Your task to perform on an android device: toggle notification dots Image 0: 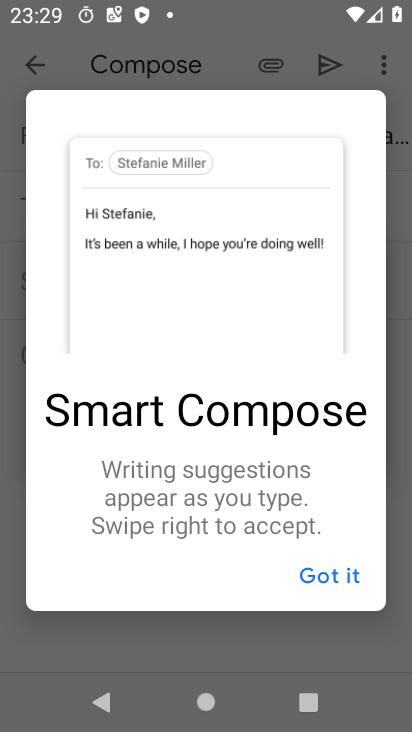
Step 0: click (320, 564)
Your task to perform on an android device: toggle notification dots Image 1: 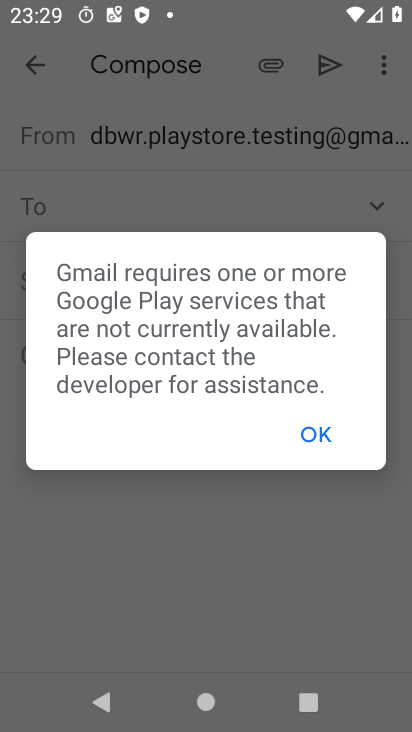
Step 1: click (311, 430)
Your task to perform on an android device: toggle notification dots Image 2: 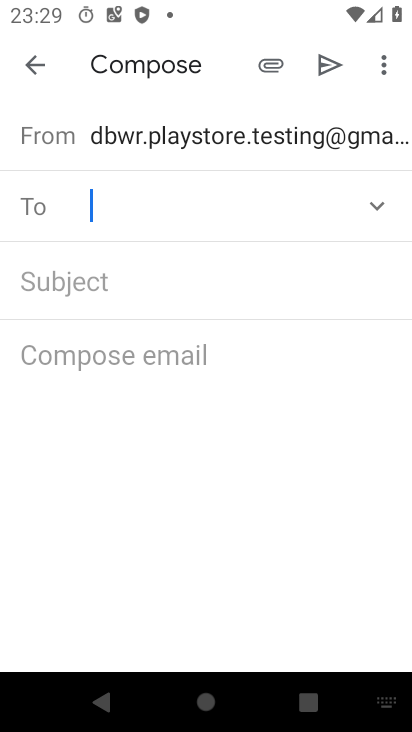
Step 2: drag from (225, 524) to (213, 286)
Your task to perform on an android device: toggle notification dots Image 3: 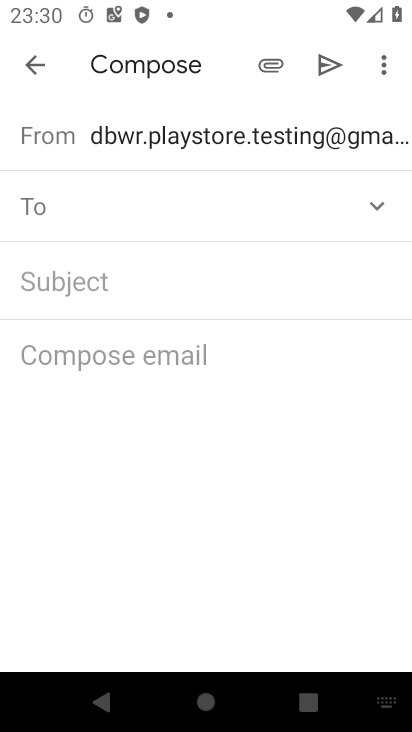
Step 3: press home button
Your task to perform on an android device: toggle notification dots Image 4: 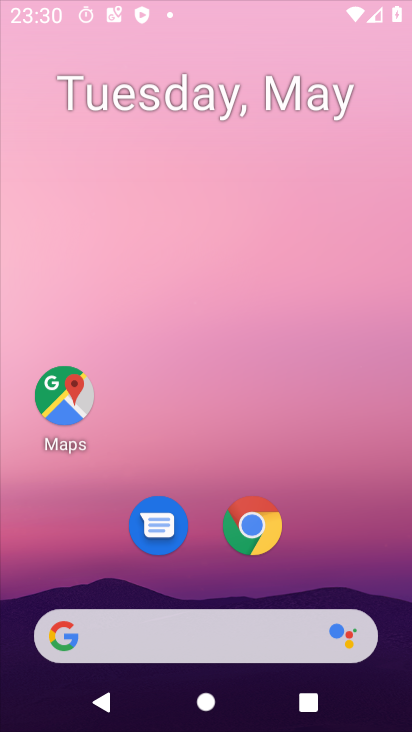
Step 4: drag from (154, 496) to (399, 91)
Your task to perform on an android device: toggle notification dots Image 5: 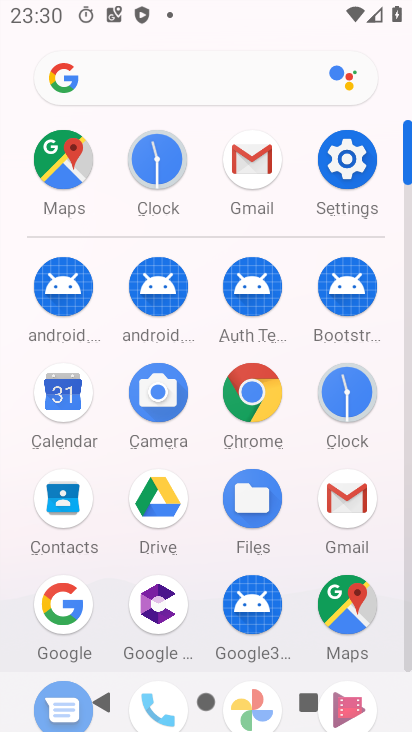
Step 5: click (347, 177)
Your task to perform on an android device: toggle notification dots Image 6: 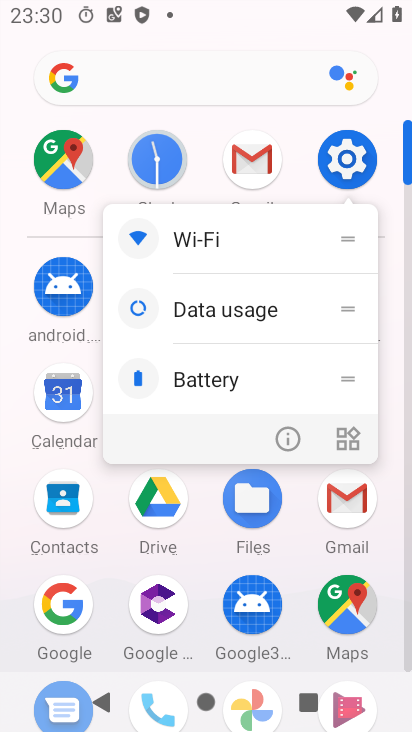
Step 6: click (279, 429)
Your task to perform on an android device: toggle notification dots Image 7: 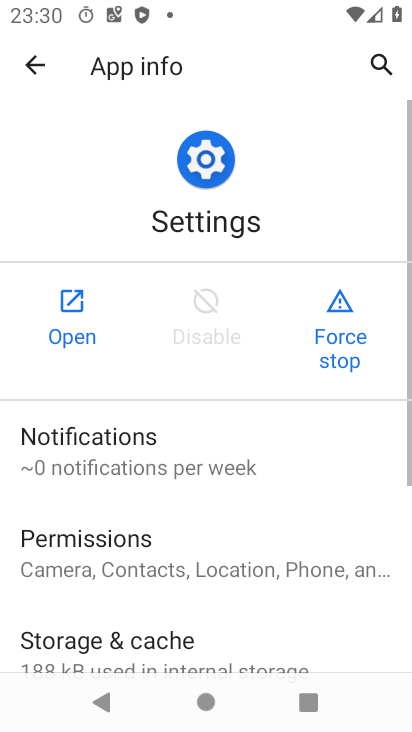
Step 7: drag from (126, 566) to (139, 165)
Your task to perform on an android device: toggle notification dots Image 8: 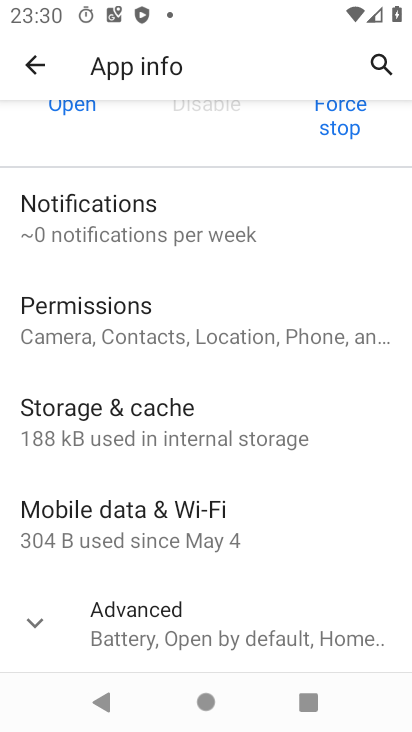
Step 8: click (73, 112)
Your task to perform on an android device: toggle notification dots Image 9: 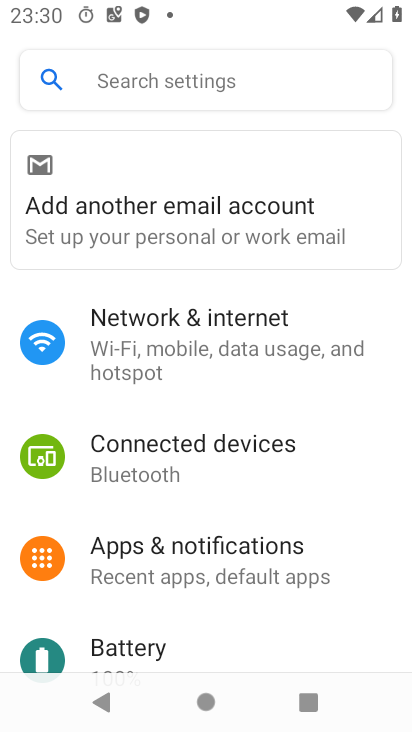
Step 9: drag from (208, 571) to (234, 210)
Your task to perform on an android device: toggle notification dots Image 10: 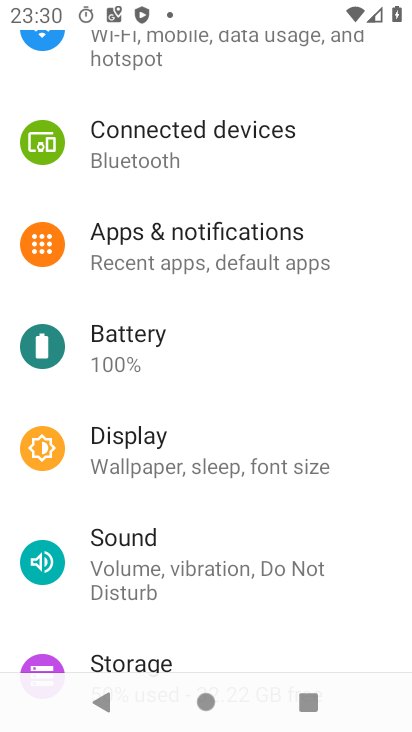
Step 10: drag from (187, 442) to (194, 331)
Your task to perform on an android device: toggle notification dots Image 11: 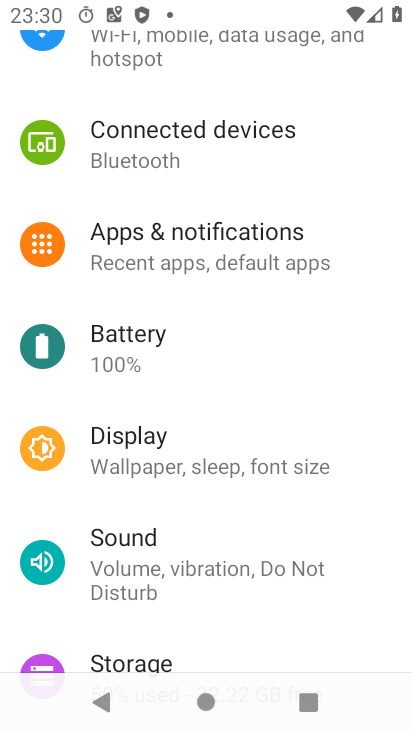
Step 11: drag from (176, 612) to (248, 286)
Your task to perform on an android device: toggle notification dots Image 12: 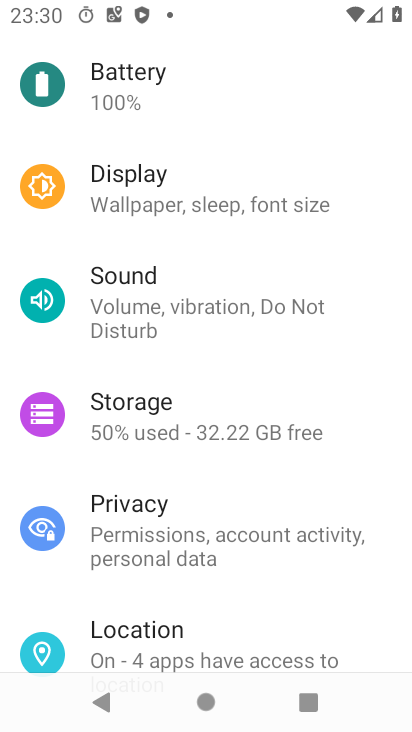
Step 12: drag from (169, 363) to (305, 8)
Your task to perform on an android device: toggle notification dots Image 13: 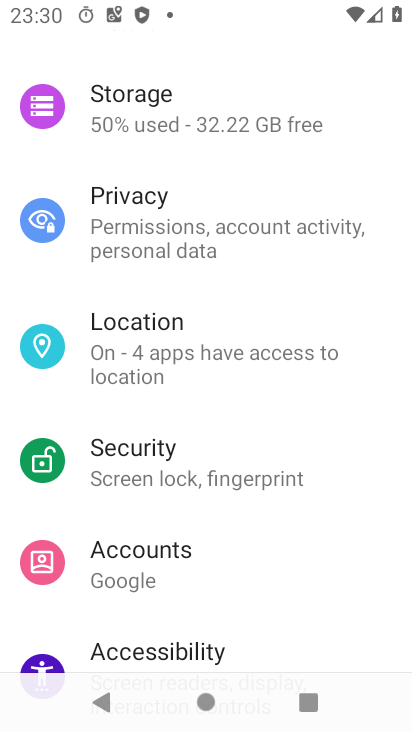
Step 13: drag from (235, 191) to (244, 722)
Your task to perform on an android device: toggle notification dots Image 14: 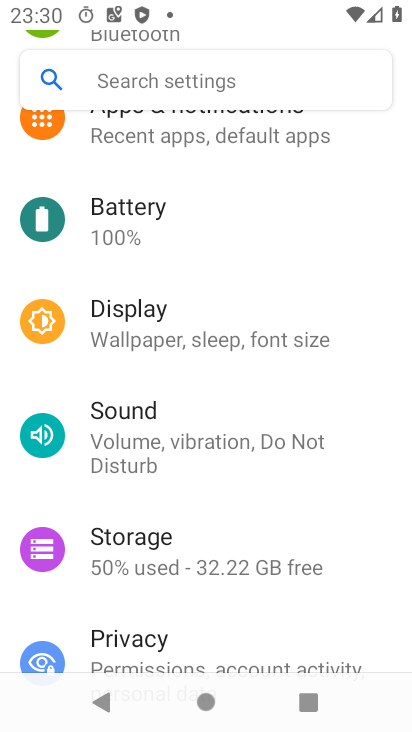
Step 14: drag from (217, 137) to (267, 730)
Your task to perform on an android device: toggle notification dots Image 15: 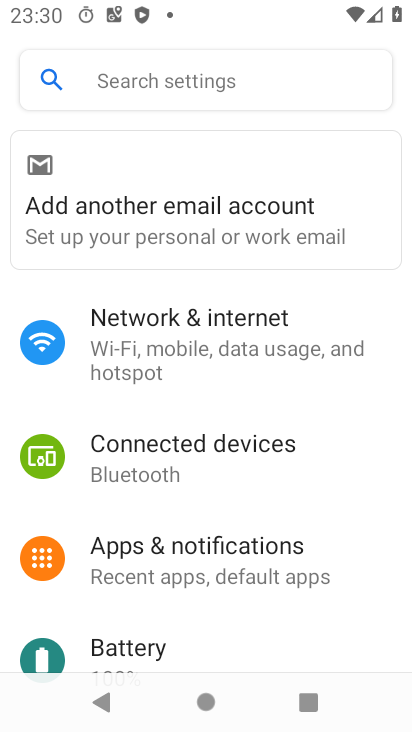
Step 15: click (181, 593)
Your task to perform on an android device: toggle notification dots Image 16: 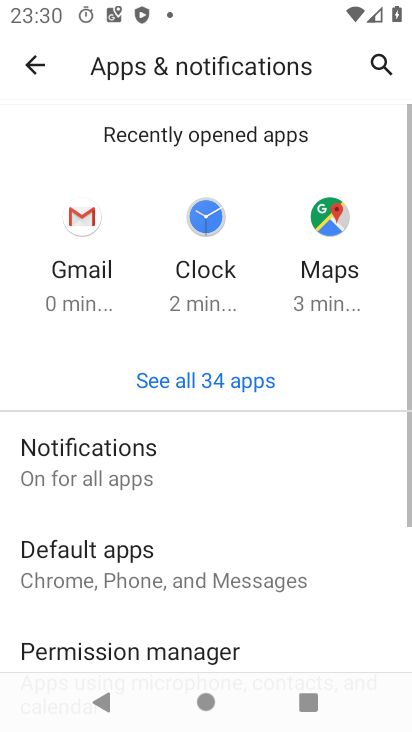
Step 16: click (163, 465)
Your task to perform on an android device: toggle notification dots Image 17: 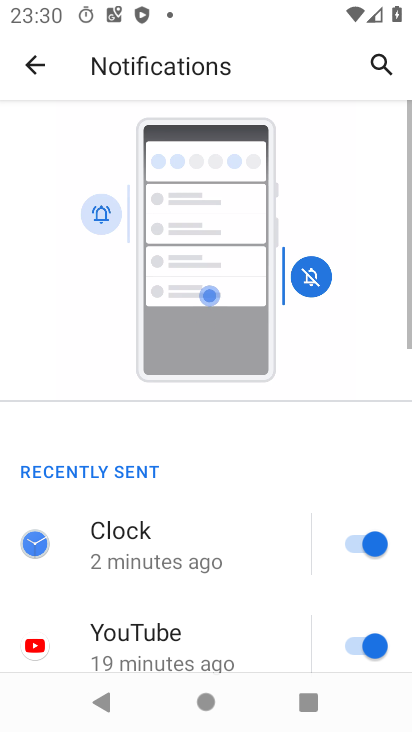
Step 17: drag from (203, 567) to (316, 77)
Your task to perform on an android device: toggle notification dots Image 18: 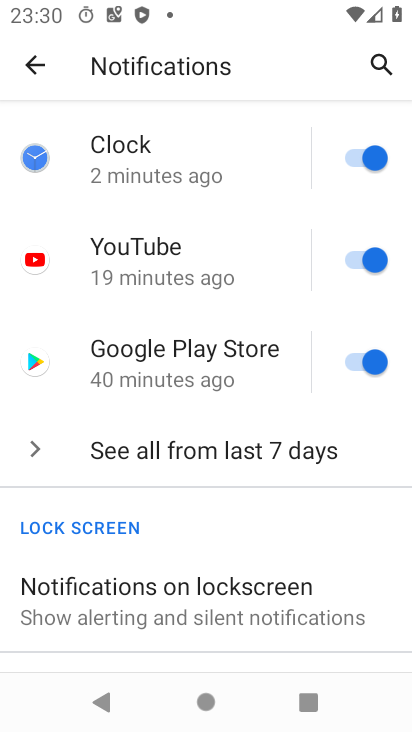
Step 18: drag from (182, 621) to (258, 128)
Your task to perform on an android device: toggle notification dots Image 19: 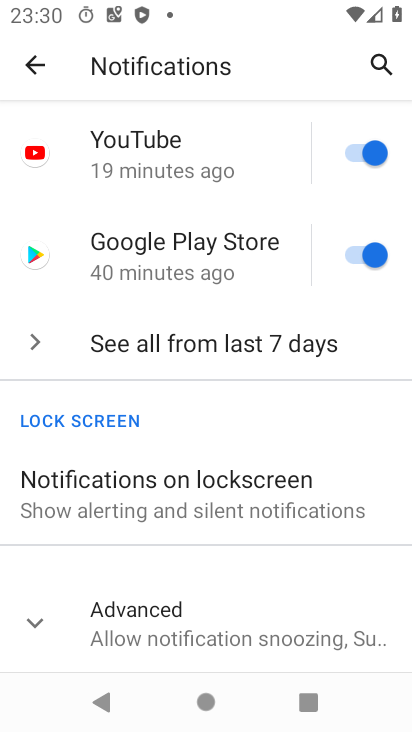
Step 19: click (182, 628)
Your task to perform on an android device: toggle notification dots Image 20: 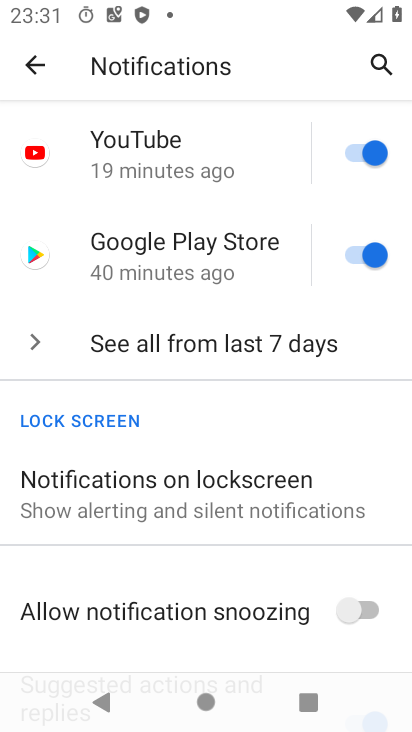
Step 20: drag from (194, 580) to (273, 322)
Your task to perform on an android device: toggle notification dots Image 21: 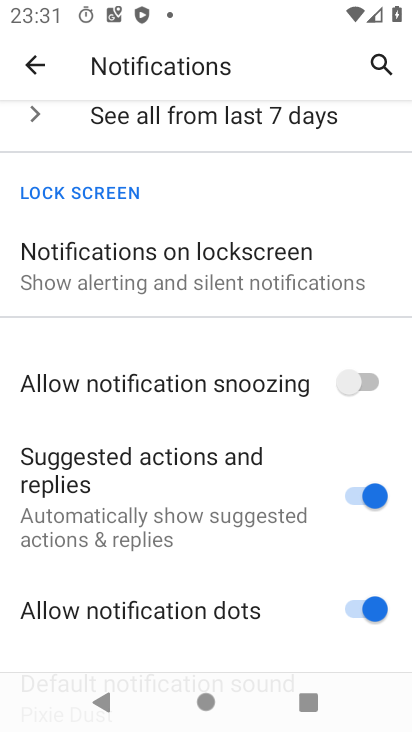
Step 21: click (325, 599)
Your task to perform on an android device: toggle notification dots Image 22: 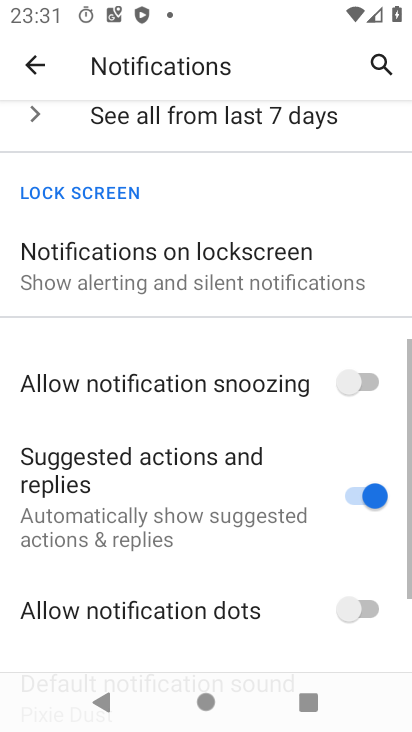
Step 22: task complete